Your task to perform on an android device: Check the news Image 0: 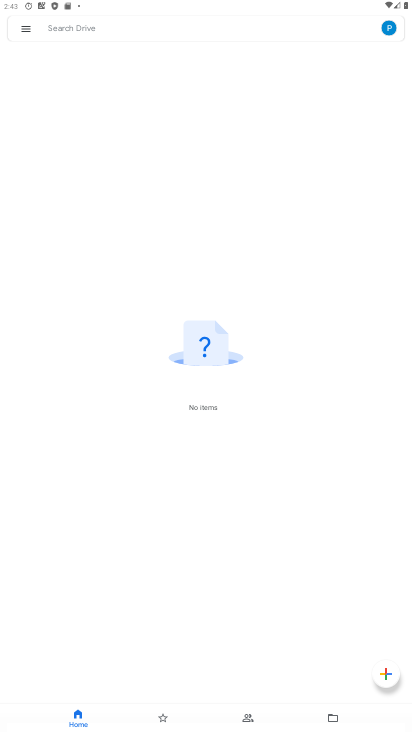
Step 0: press home button
Your task to perform on an android device: Check the news Image 1: 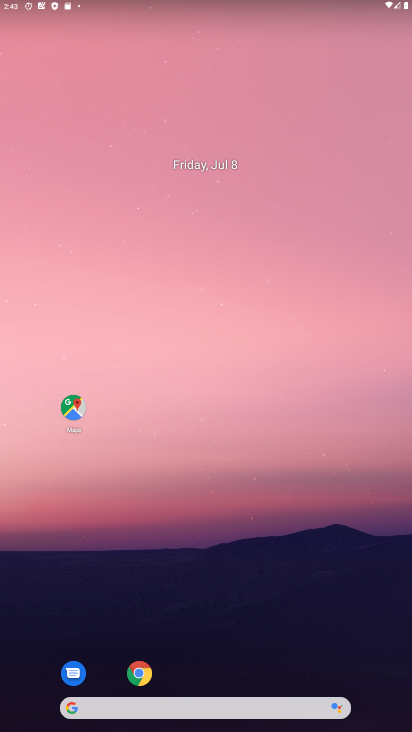
Step 1: drag from (198, 704) to (261, 316)
Your task to perform on an android device: Check the news Image 2: 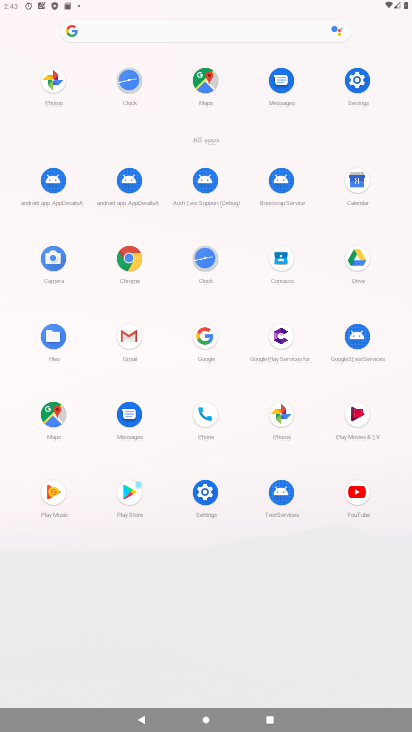
Step 2: click (210, 335)
Your task to perform on an android device: Check the news Image 3: 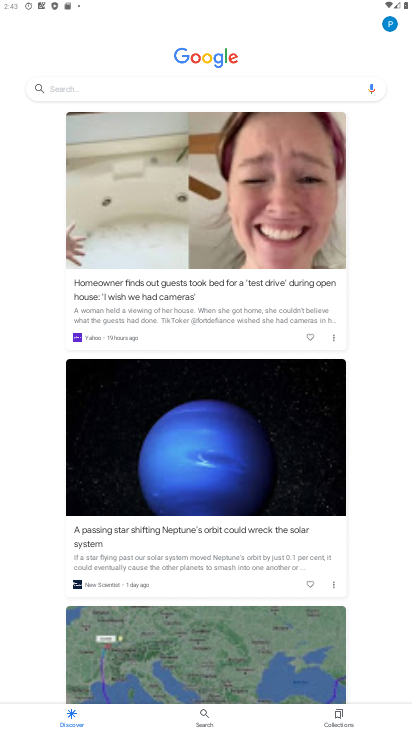
Step 3: click (171, 94)
Your task to perform on an android device: Check the news Image 4: 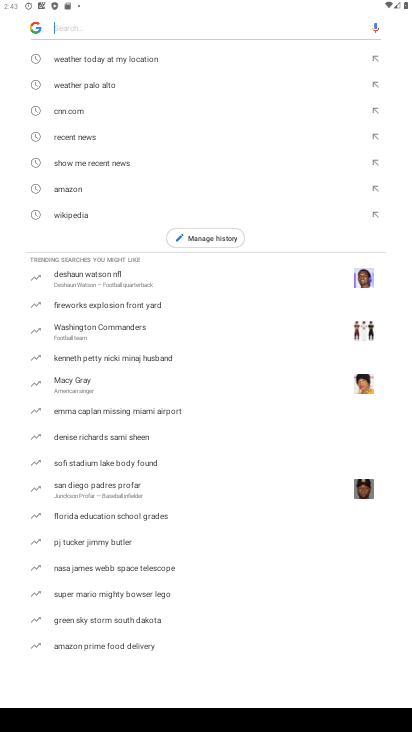
Step 4: click (90, 137)
Your task to perform on an android device: Check the news Image 5: 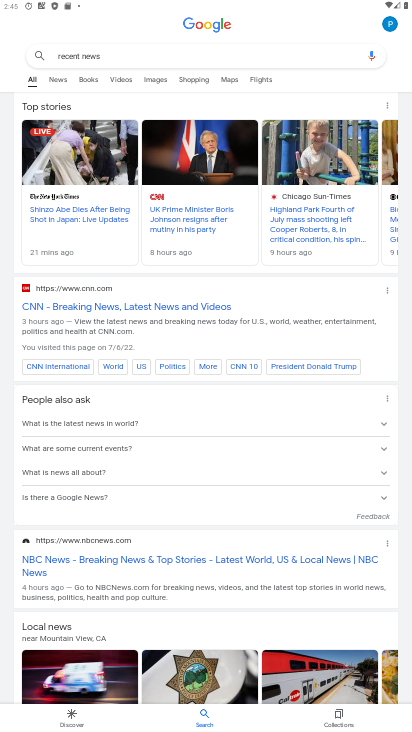
Step 5: task complete